Your task to perform on an android device: add a label to a message in the gmail app Image 0: 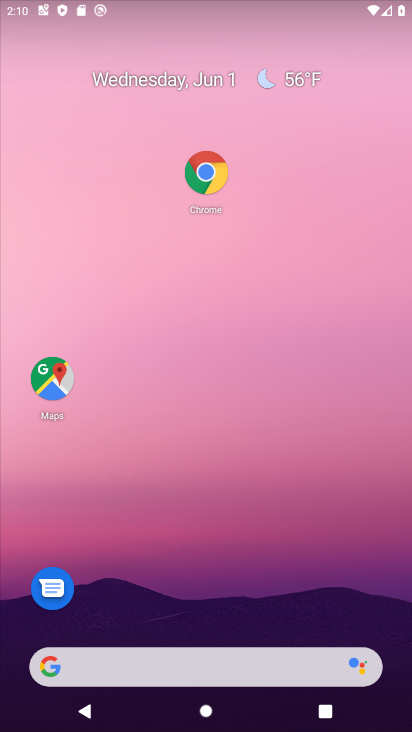
Step 0: drag from (228, 556) to (224, 53)
Your task to perform on an android device: add a label to a message in the gmail app Image 1: 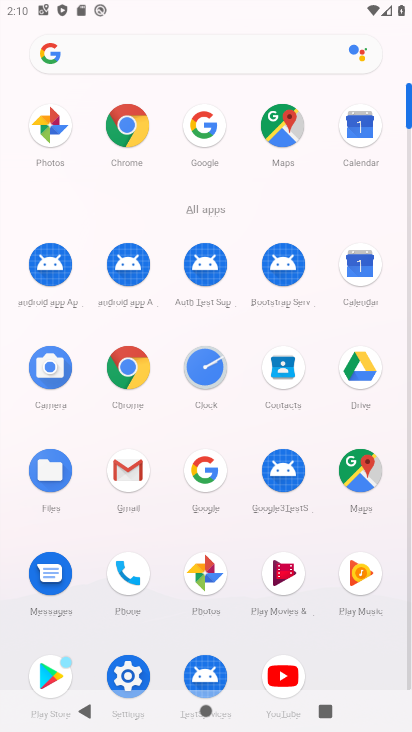
Step 1: click (135, 463)
Your task to perform on an android device: add a label to a message in the gmail app Image 2: 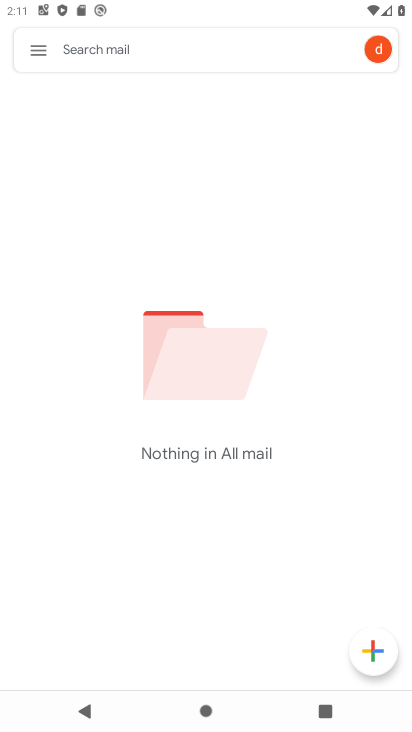
Step 2: task complete